Your task to perform on an android device: turn on bluetooth scan Image 0: 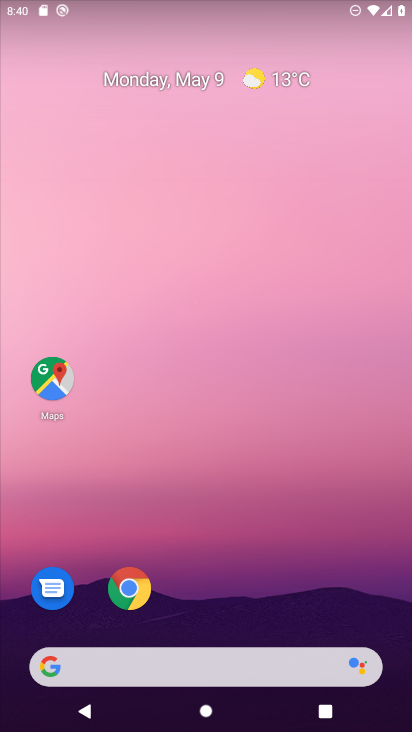
Step 0: drag from (327, 626) to (344, 13)
Your task to perform on an android device: turn on bluetooth scan Image 1: 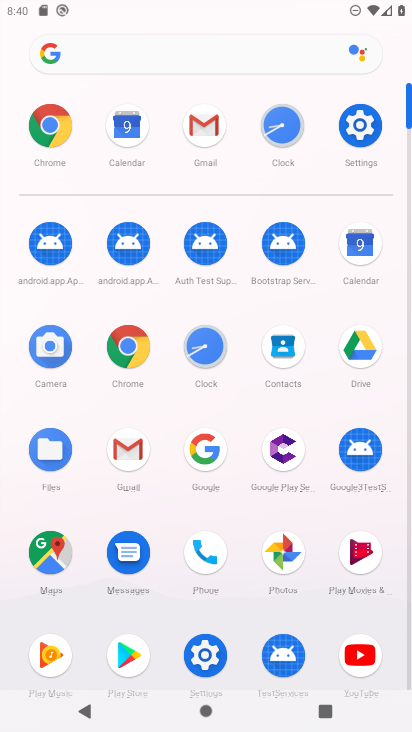
Step 1: click (335, 159)
Your task to perform on an android device: turn on bluetooth scan Image 2: 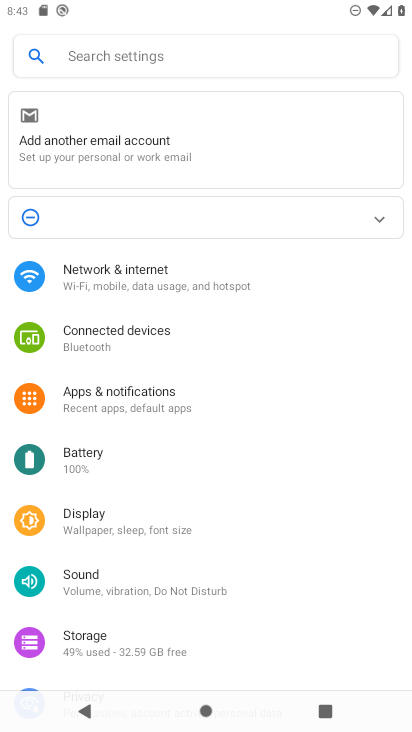
Step 2: drag from (207, 576) to (243, 246)
Your task to perform on an android device: turn on bluetooth scan Image 3: 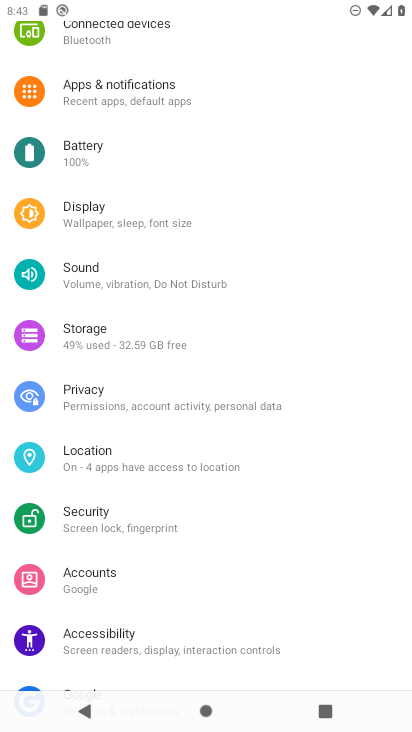
Step 3: click (206, 405)
Your task to perform on an android device: turn on bluetooth scan Image 4: 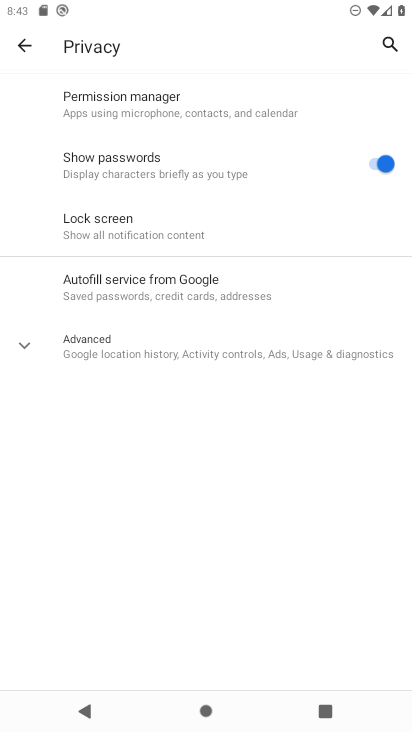
Step 4: click (144, 357)
Your task to perform on an android device: turn on bluetooth scan Image 5: 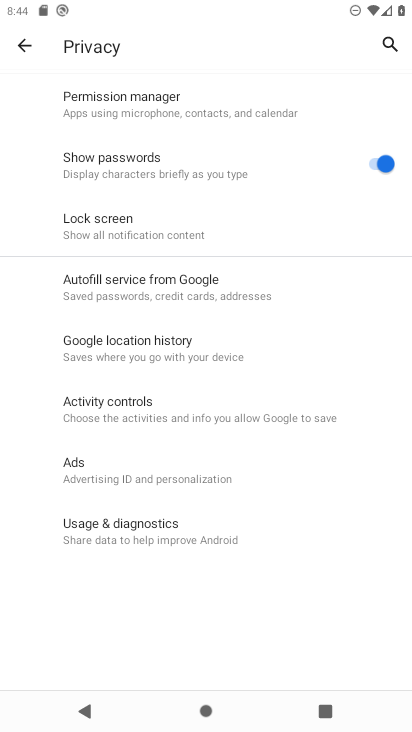
Step 5: task complete